Your task to perform on an android device: Open my contact list Image 0: 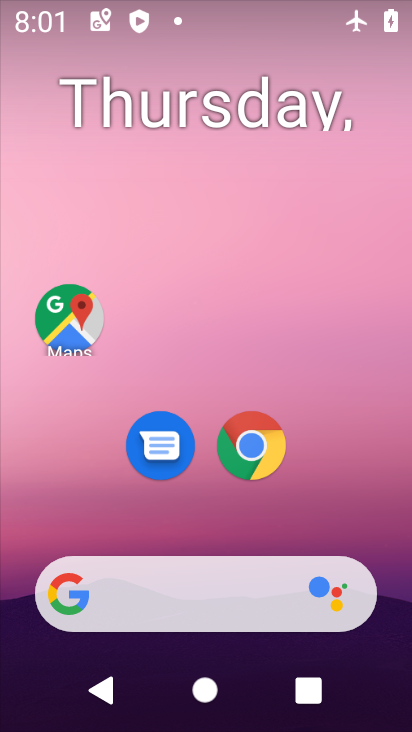
Step 0: drag from (320, 528) to (313, 44)
Your task to perform on an android device: Open my contact list Image 1: 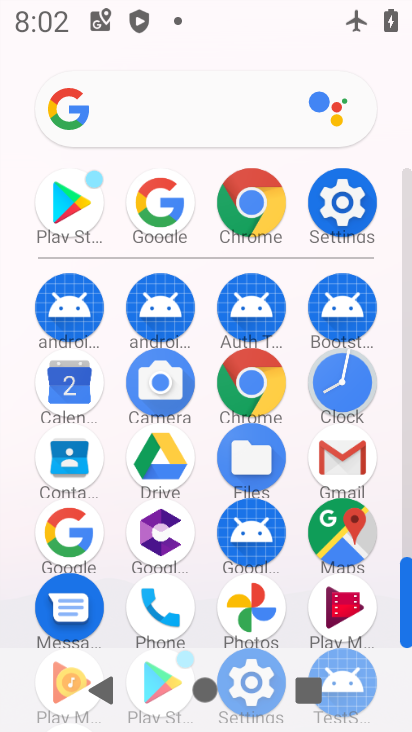
Step 1: click (90, 453)
Your task to perform on an android device: Open my contact list Image 2: 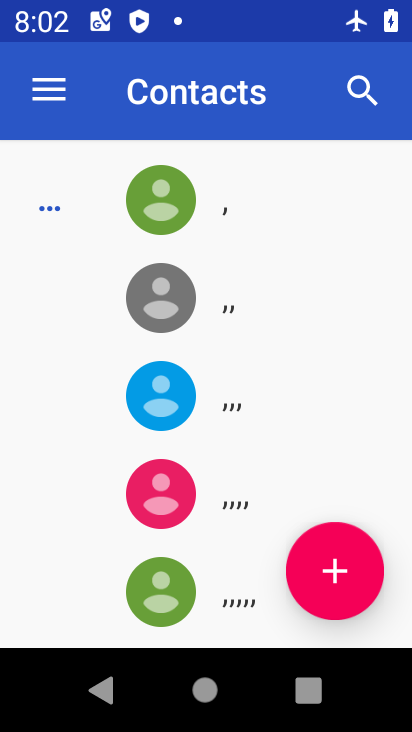
Step 2: task complete